Your task to perform on an android device: Go to Android settings Image 0: 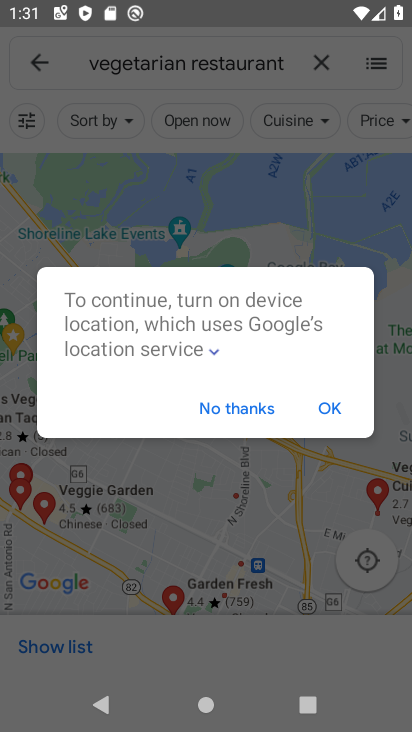
Step 0: press home button
Your task to perform on an android device: Go to Android settings Image 1: 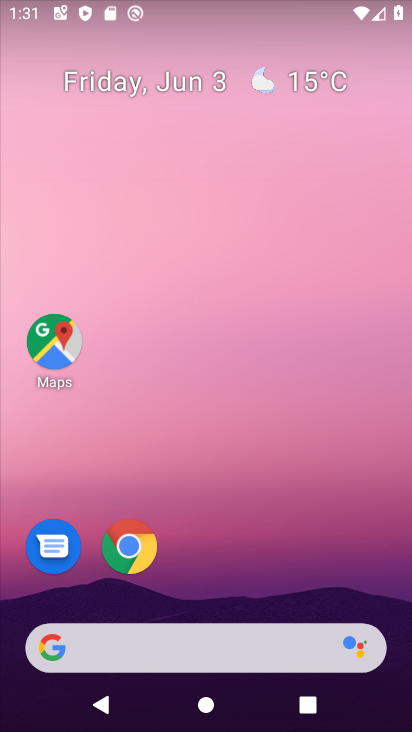
Step 1: drag from (332, 580) to (331, 6)
Your task to perform on an android device: Go to Android settings Image 2: 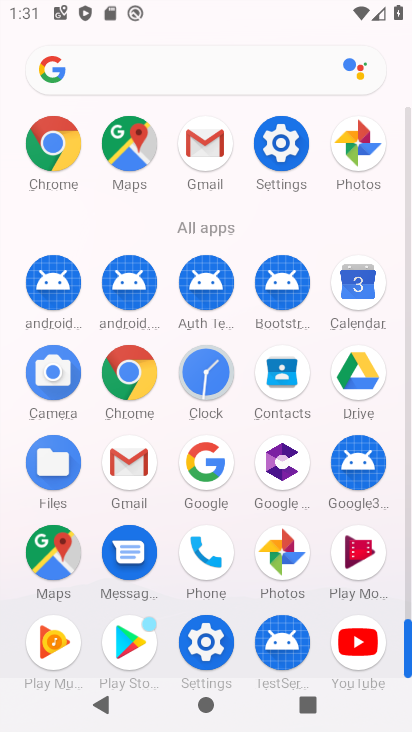
Step 2: click (288, 151)
Your task to perform on an android device: Go to Android settings Image 3: 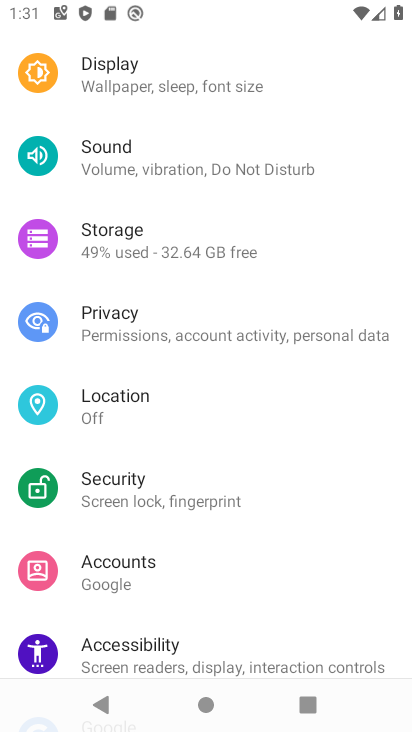
Step 3: task complete